Your task to perform on an android device: open app "Speedtest by Ookla" (install if not already installed) Image 0: 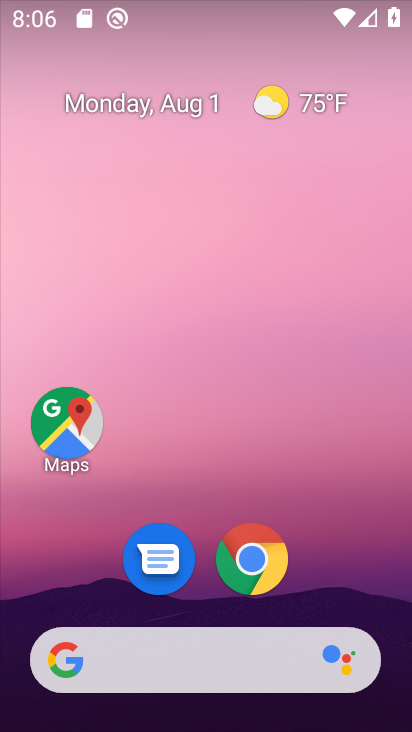
Step 0: drag from (231, 642) to (258, 75)
Your task to perform on an android device: open app "Speedtest by Ookla" (install if not already installed) Image 1: 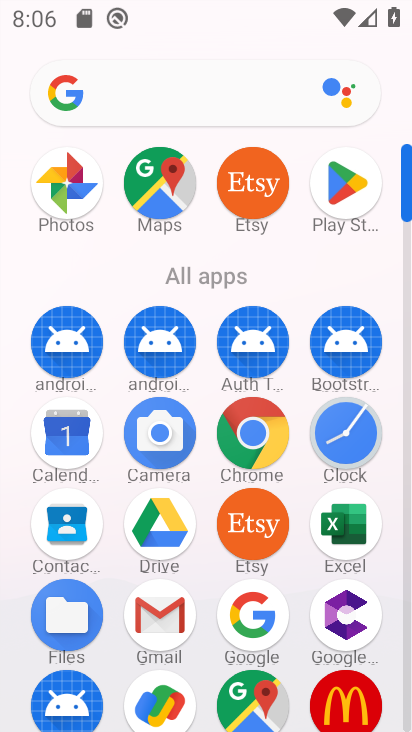
Step 1: click (344, 198)
Your task to perform on an android device: open app "Speedtest by Ookla" (install if not already installed) Image 2: 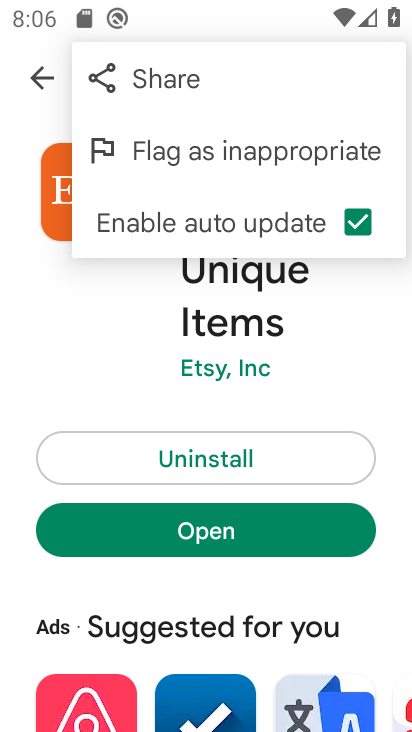
Step 2: press back button
Your task to perform on an android device: open app "Speedtest by Ookla" (install if not already installed) Image 3: 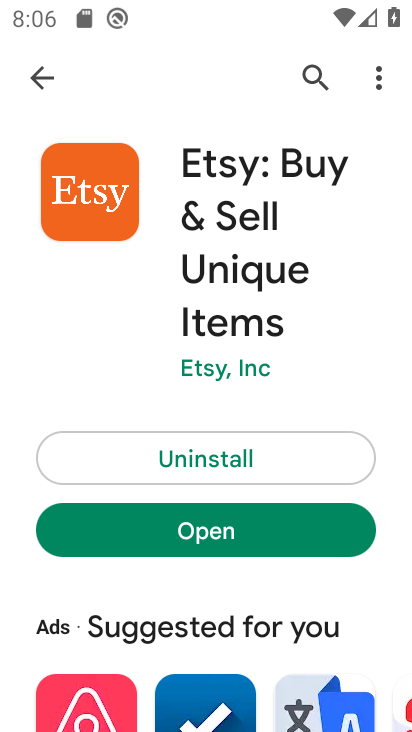
Step 3: click (326, 67)
Your task to perform on an android device: open app "Speedtest by Ookla" (install if not already installed) Image 4: 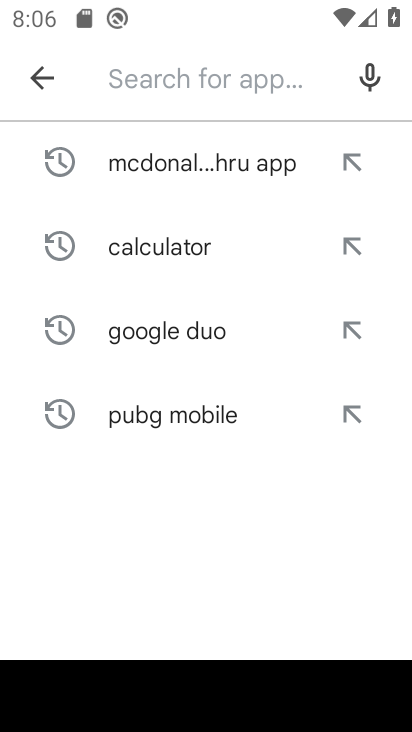
Step 4: type "Speedtest by Ookla"
Your task to perform on an android device: open app "Speedtest by Ookla" (install if not already installed) Image 5: 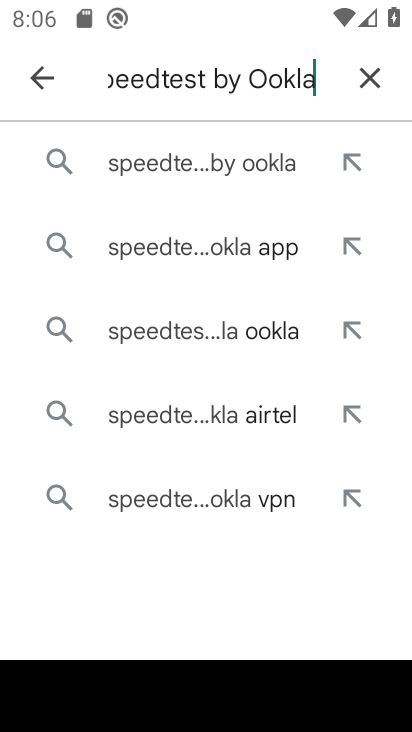
Step 5: click (242, 166)
Your task to perform on an android device: open app "Speedtest by Ookla" (install if not already installed) Image 6: 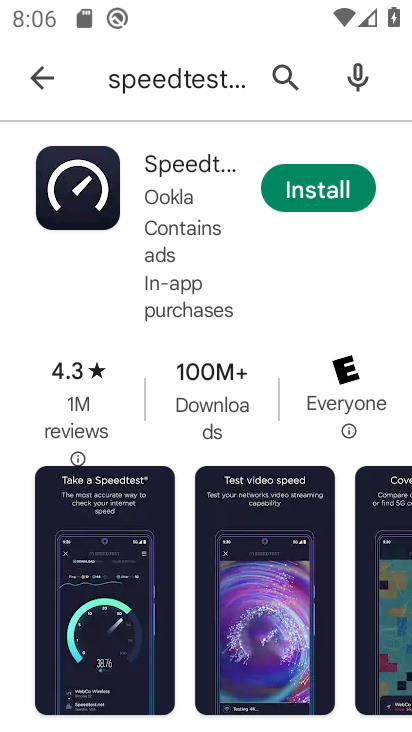
Step 6: click (337, 201)
Your task to perform on an android device: open app "Speedtest by Ookla" (install if not already installed) Image 7: 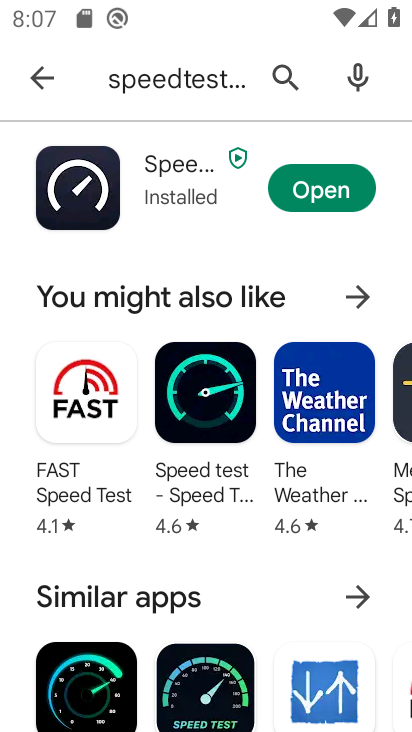
Step 7: click (346, 184)
Your task to perform on an android device: open app "Speedtest by Ookla" (install if not already installed) Image 8: 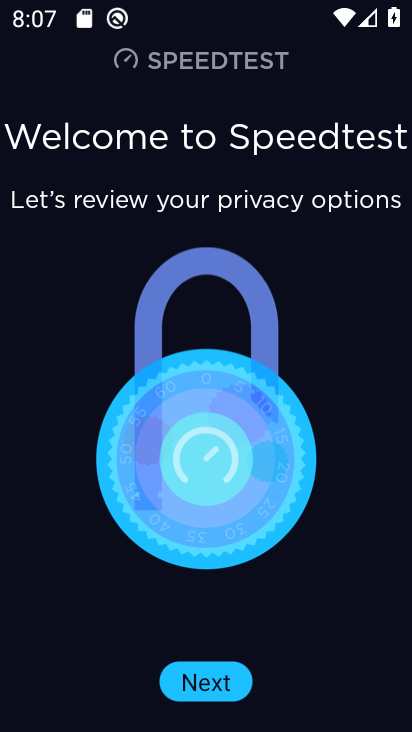
Step 8: task complete